Your task to perform on an android device: Open wifi settings Image 0: 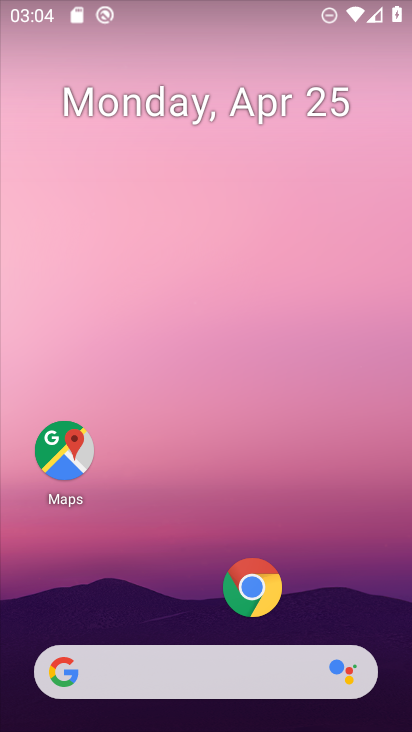
Step 0: drag from (201, 628) to (209, 15)
Your task to perform on an android device: Open wifi settings Image 1: 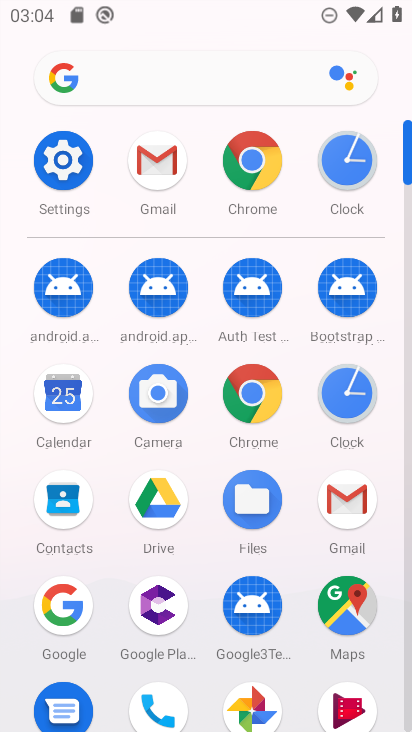
Step 1: click (58, 154)
Your task to perform on an android device: Open wifi settings Image 2: 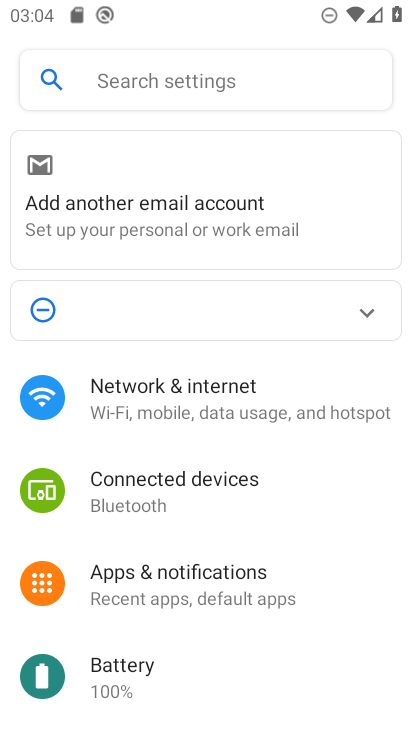
Step 2: click (69, 395)
Your task to perform on an android device: Open wifi settings Image 3: 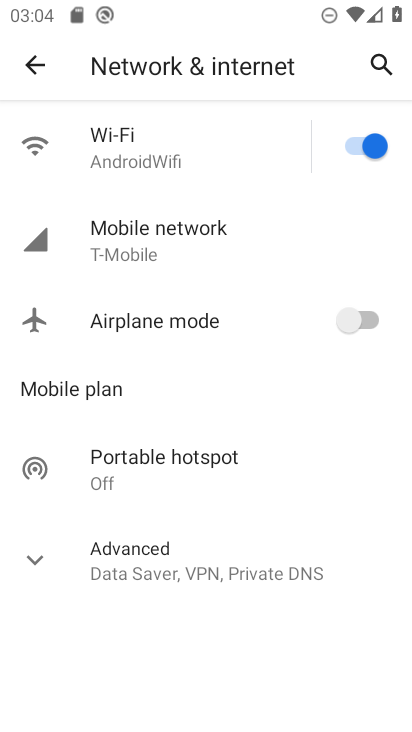
Step 3: click (198, 150)
Your task to perform on an android device: Open wifi settings Image 4: 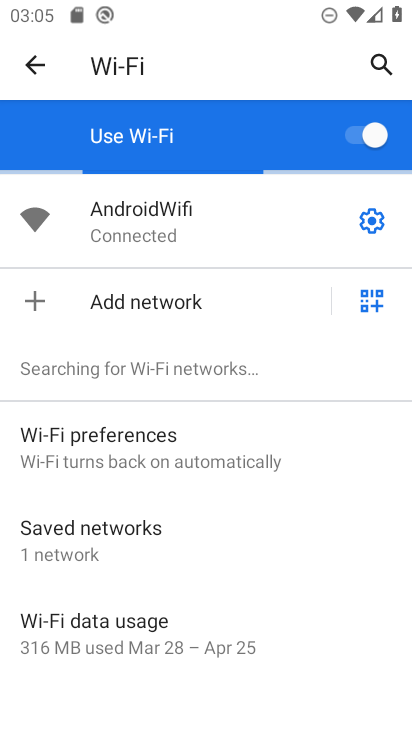
Step 4: task complete